Your task to perform on an android device: open chrome privacy settings Image 0: 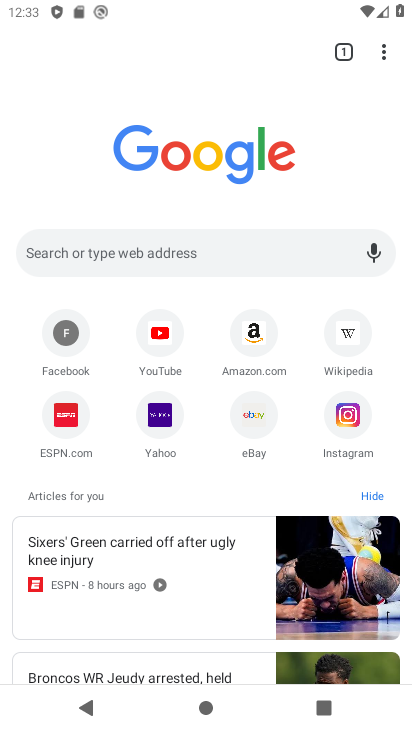
Step 0: click (382, 59)
Your task to perform on an android device: open chrome privacy settings Image 1: 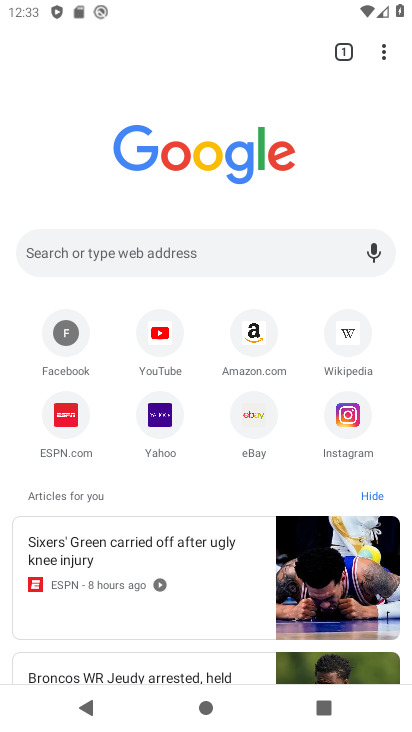
Step 1: click (386, 58)
Your task to perform on an android device: open chrome privacy settings Image 2: 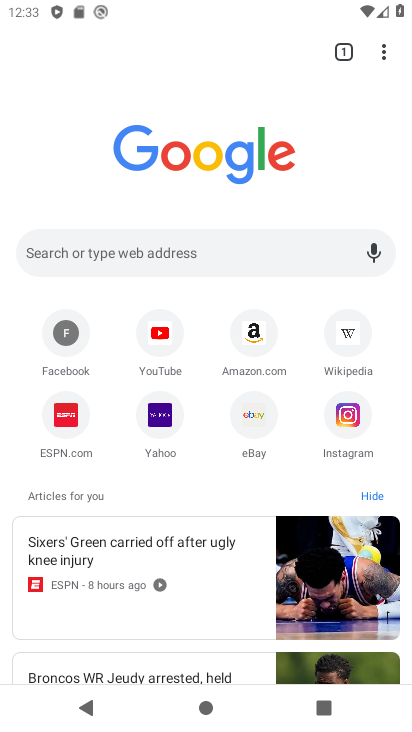
Step 2: click (382, 48)
Your task to perform on an android device: open chrome privacy settings Image 3: 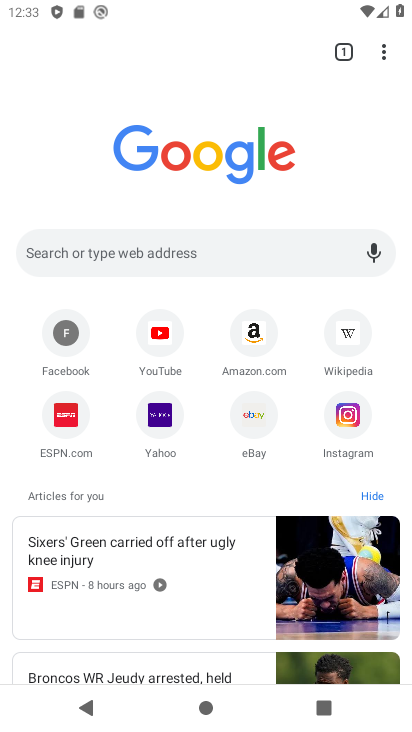
Step 3: click (382, 48)
Your task to perform on an android device: open chrome privacy settings Image 4: 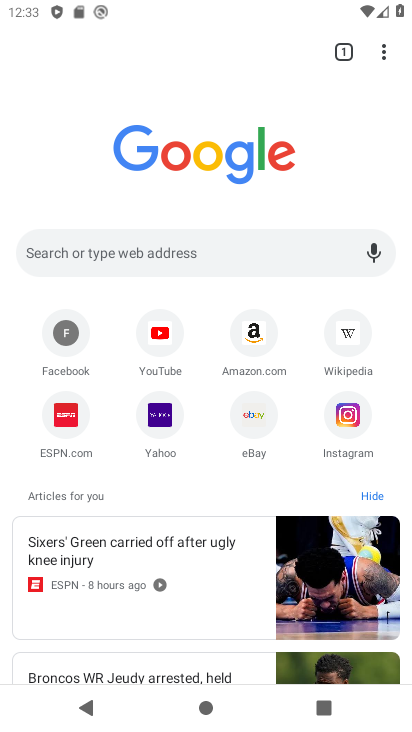
Step 4: click (382, 53)
Your task to perform on an android device: open chrome privacy settings Image 5: 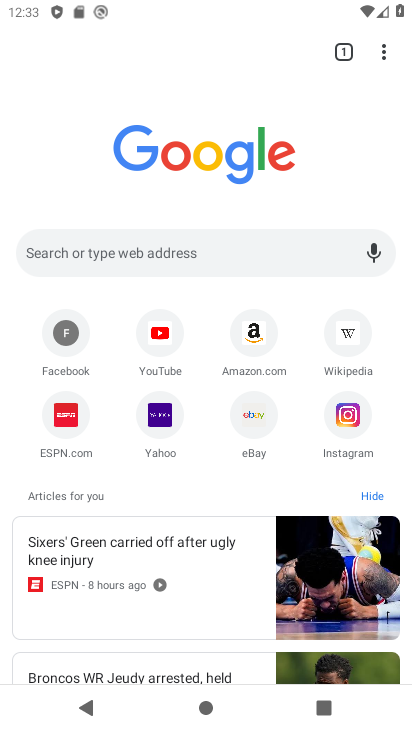
Step 5: click (383, 54)
Your task to perform on an android device: open chrome privacy settings Image 6: 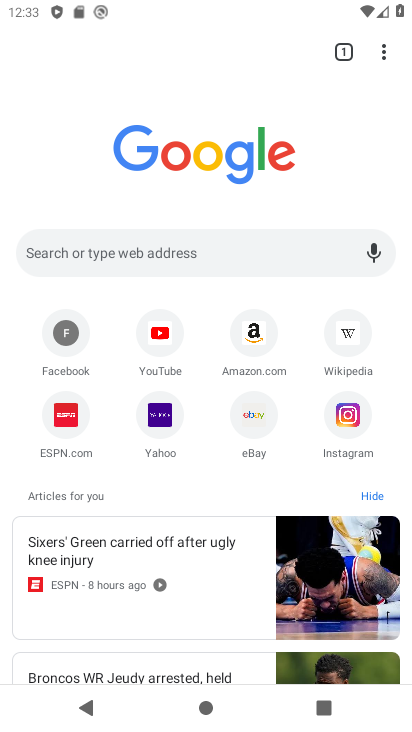
Step 6: click (385, 53)
Your task to perform on an android device: open chrome privacy settings Image 7: 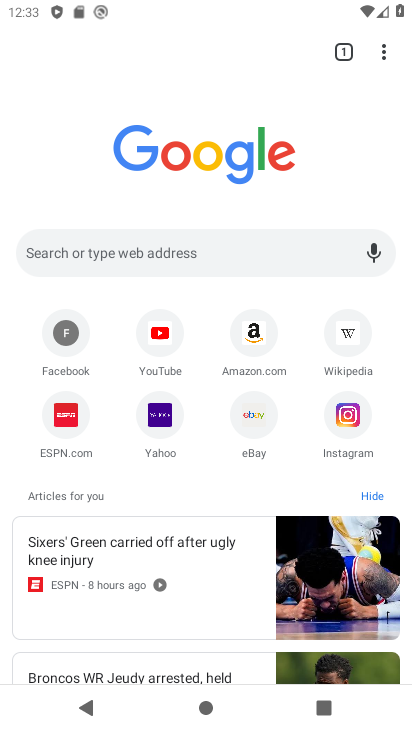
Step 7: click (390, 52)
Your task to perform on an android device: open chrome privacy settings Image 8: 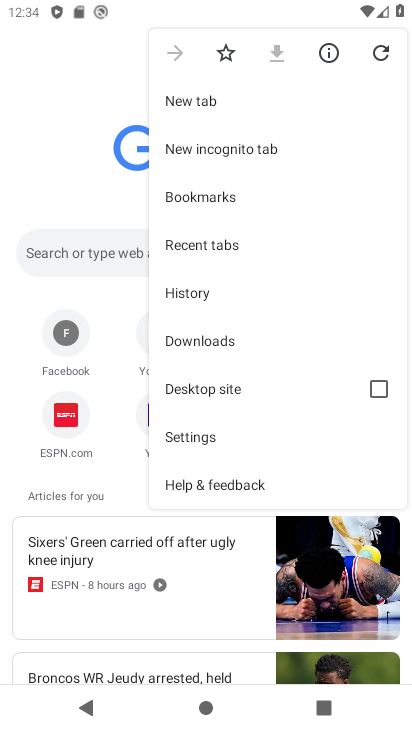
Step 8: click (197, 447)
Your task to perform on an android device: open chrome privacy settings Image 9: 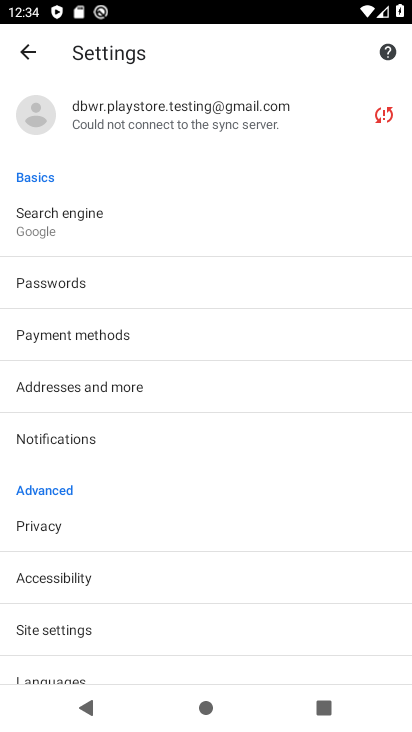
Step 9: drag from (132, 631) to (132, 314)
Your task to perform on an android device: open chrome privacy settings Image 10: 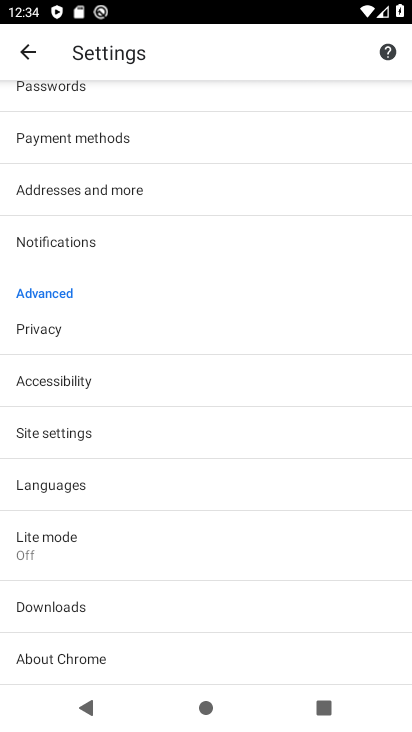
Step 10: click (56, 345)
Your task to perform on an android device: open chrome privacy settings Image 11: 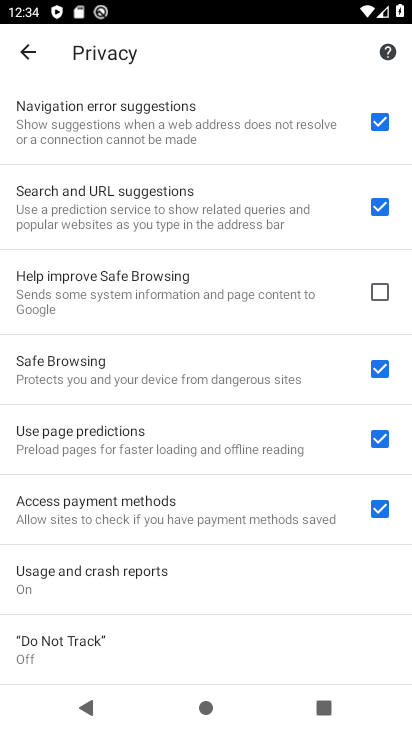
Step 11: task complete